Your task to perform on an android device: Open Android settings Image 0: 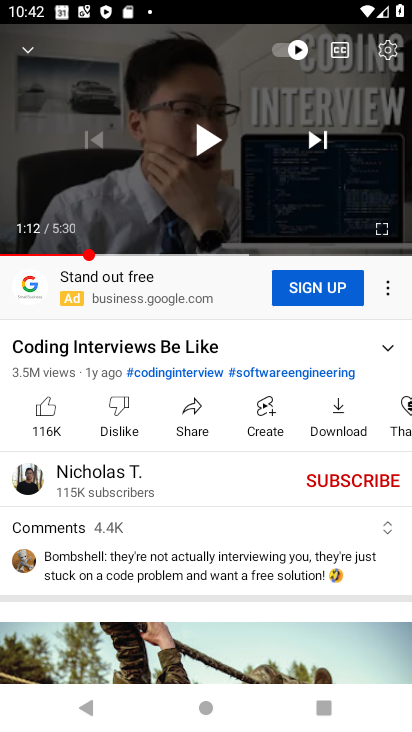
Step 0: press home button
Your task to perform on an android device: Open Android settings Image 1: 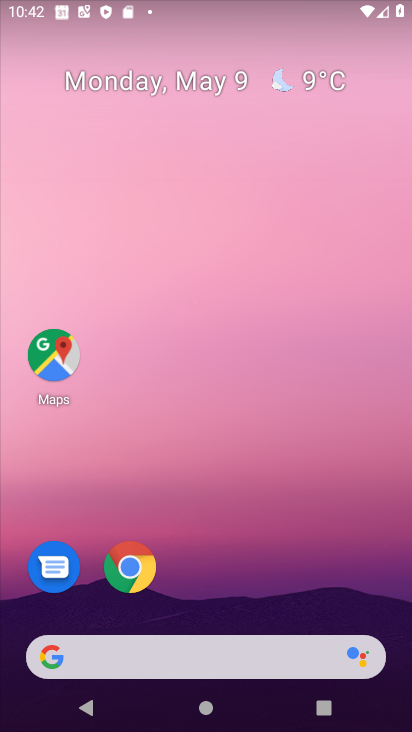
Step 1: drag from (221, 607) to (239, 70)
Your task to perform on an android device: Open Android settings Image 2: 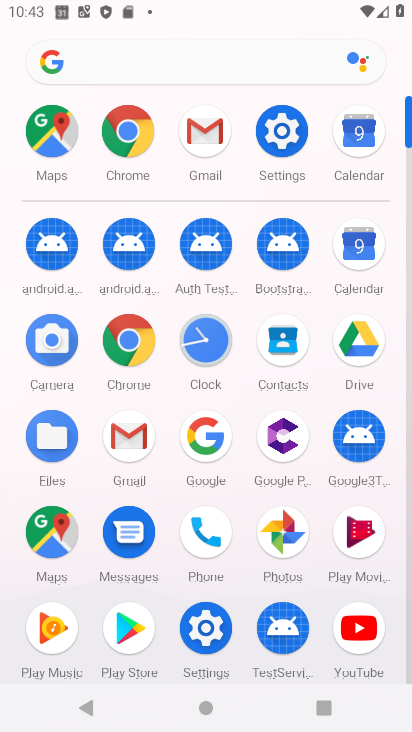
Step 2: click (282, 128)
Your task to perform on an android device: Open Android settings Image 3: 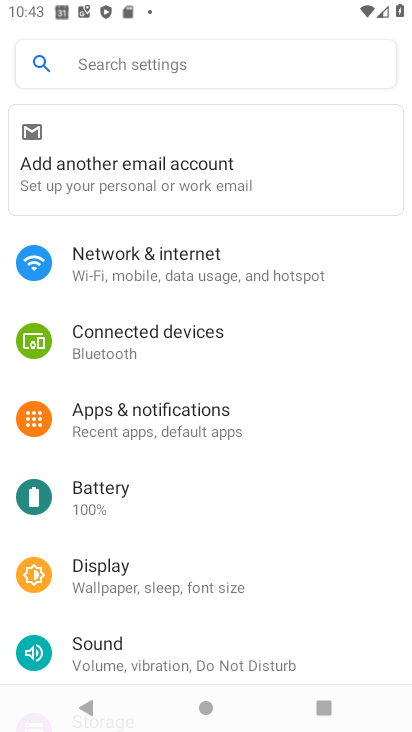
Step 3: drag from (185, 654) to (195, 137)
Your task to perform on an android device: Open Android settings Image 4: 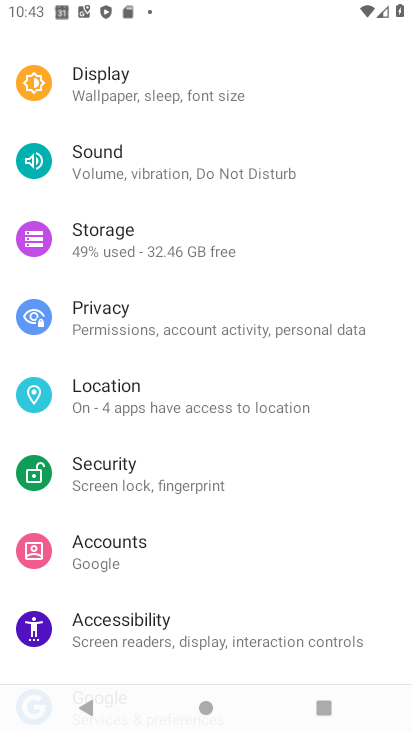
Step 4: drag from (194, 620) to (209, 125)
Your task to perform on an android device: Open Android settings Image 5: 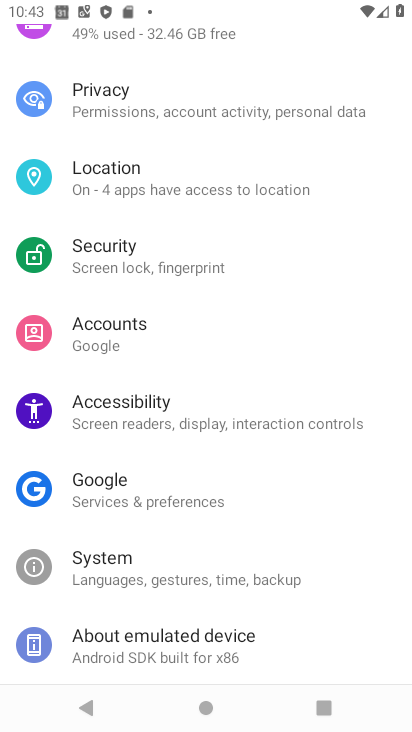
Step 5: click (241, 650)
Your task to perform on an android device: Open Android settings Image 6: 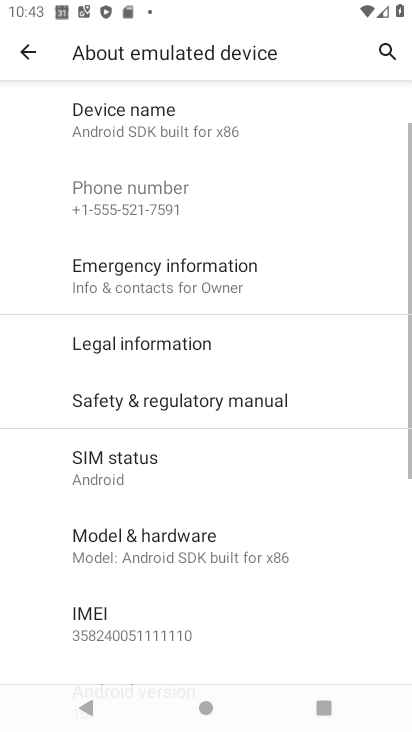
Step 6: drag from (216, 625) to (211, 173)
Your task to perform on an android device: Open Android settings Image 7: 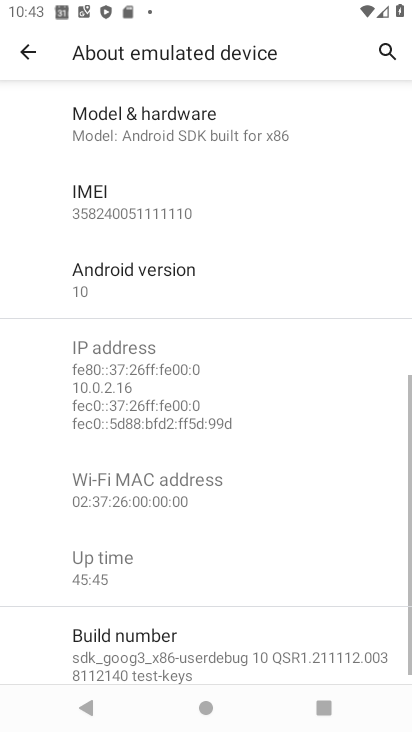
Step 7: click (158, 273)
Your task to perform on an android device: Open Android settings Image 8: 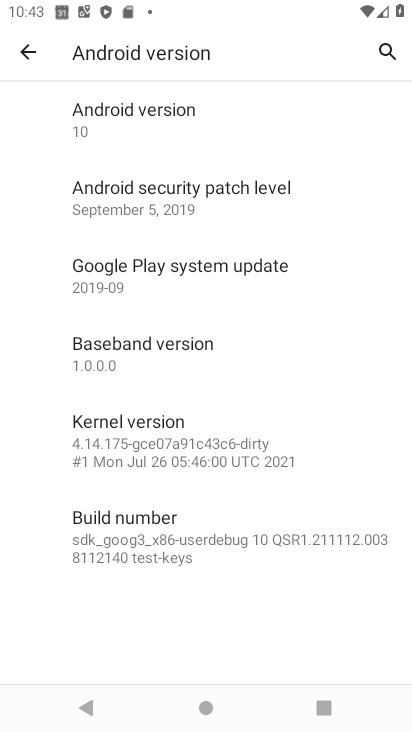
Step 8: task complete